Your task to perform on an android device: turn off javascript in the chrome app Image 0: 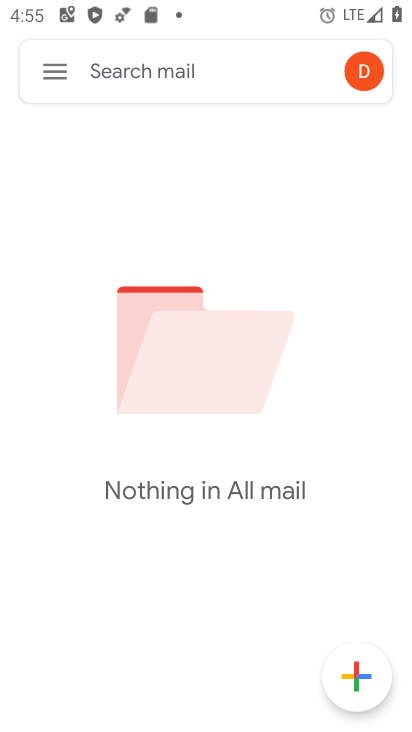
Step 0: press home button
Your task to perform on an android device: turn off javascript in the chrome app Image 1: 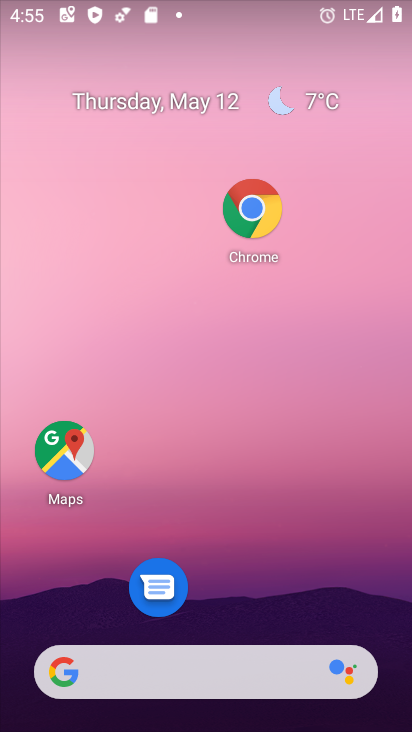
Step 1: click (256, 250)
Your task to perform on an android device: turn off javascript in the chrome app Image 2: 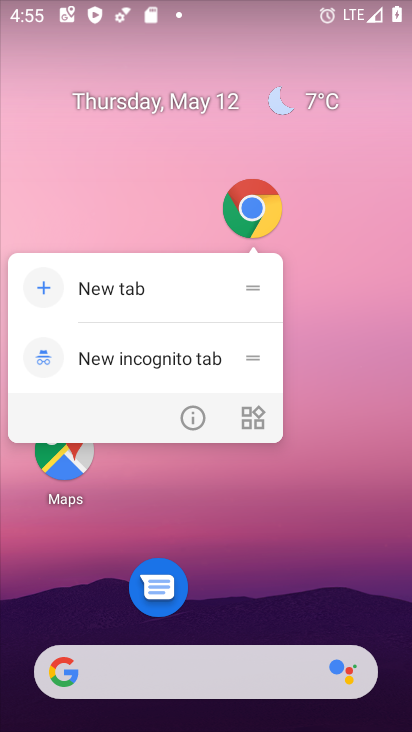
Step 2: click (255, 211)
Your task to perform on an android device: turn off javascript in the chrome app Image 3: 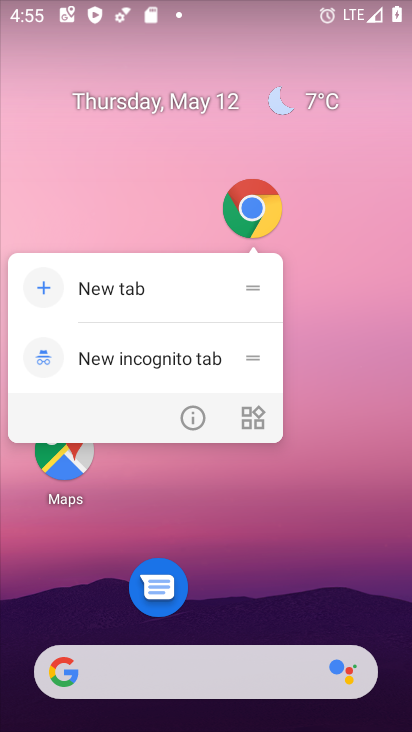
Step 3: click (255, 215)
Your task to perform on an android device: turn off javascript in the chrome app Image 4: 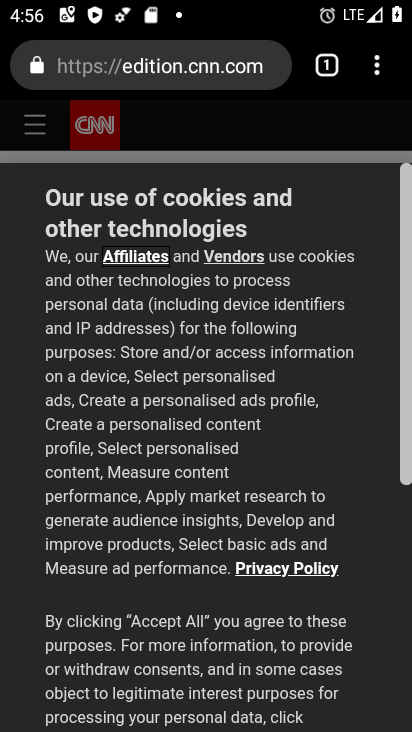
Step 4: click (382, 69)
Your task to perform on an android device: turn off javascript in the chrome app Image 5: 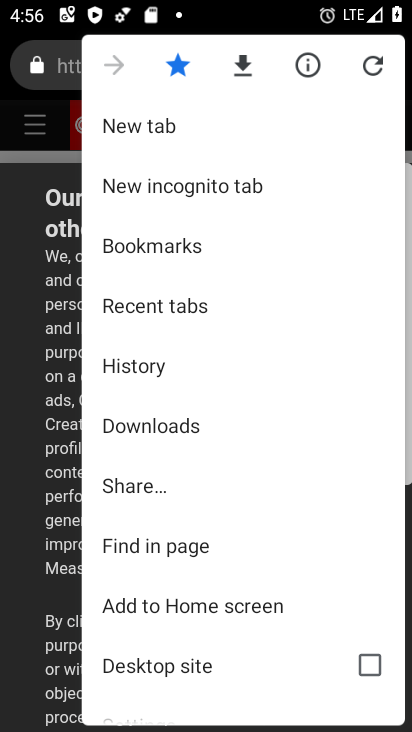
Step 5: drag from (193, 650) to (208, 394)
Your task to perform on an android device: turn off javascript in the chrome app Image 6: 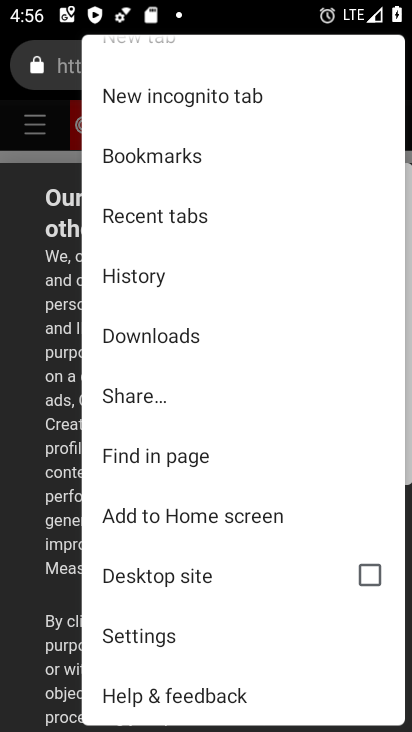
Step 6: click (162, 638)
Your task to perform on an android device: turn off javascript in the chrome app Image 7: 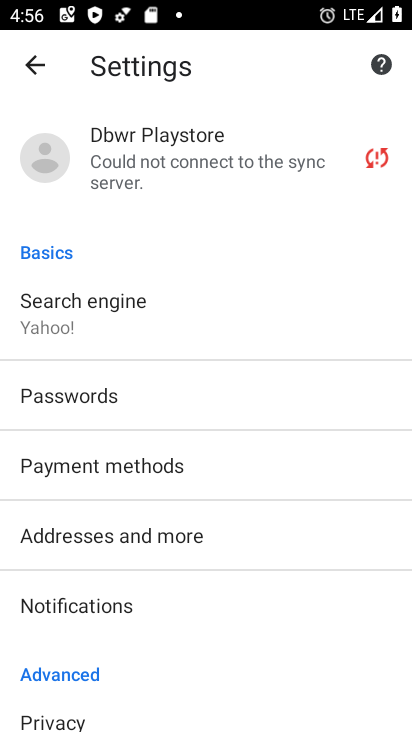
Step 7: drag from (206, 655) to (275, 366)
Your task to perform on an android device: turn off javascript in the chrome app Image 8: 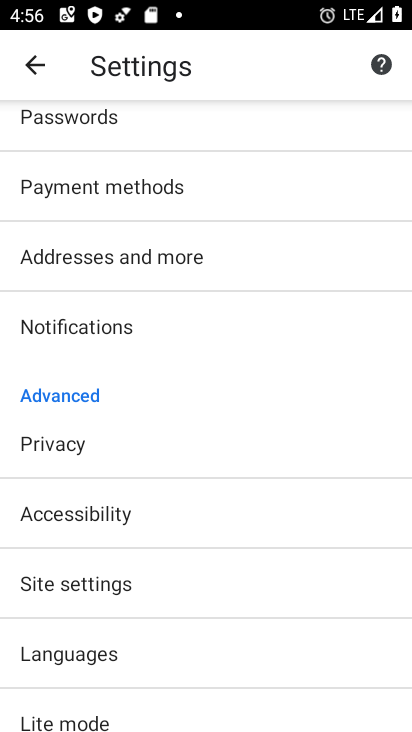
Step 8: drag from (139, 678) to (177, 417)
Your task to perform on an android device: turn off javascript in the chrome app Image 9: 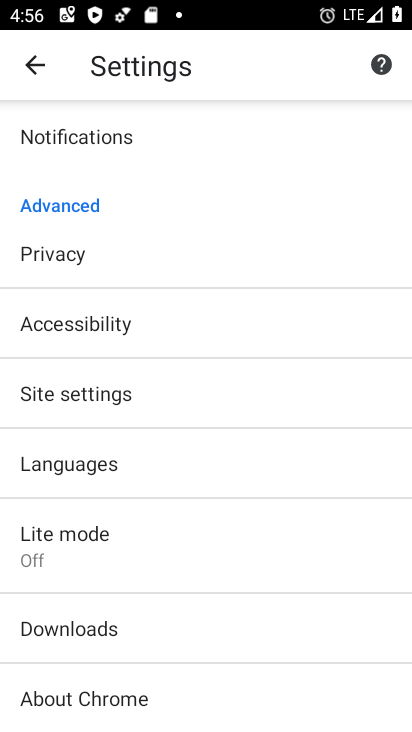
Step 9: click (101, 405)
Your task to perform on an android device: turn off javascript in the chrome app Image 10: 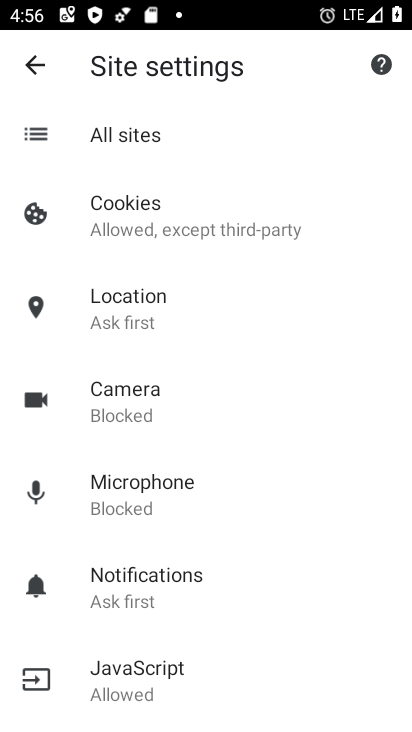
Step 10: drag from (175, 615) to (251, 238)
Your task to perform on an android device: turn off javascript in the chrome app Image 11: 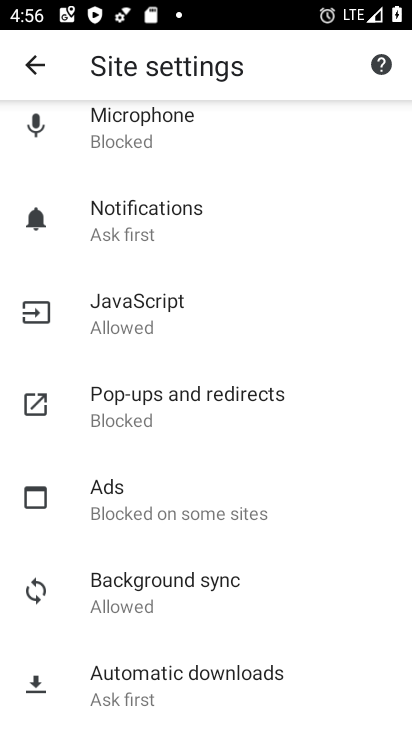
Step 11: click (179, 317)
Your task to perform on an android device: turn off javascript in the chrome app Image 12: 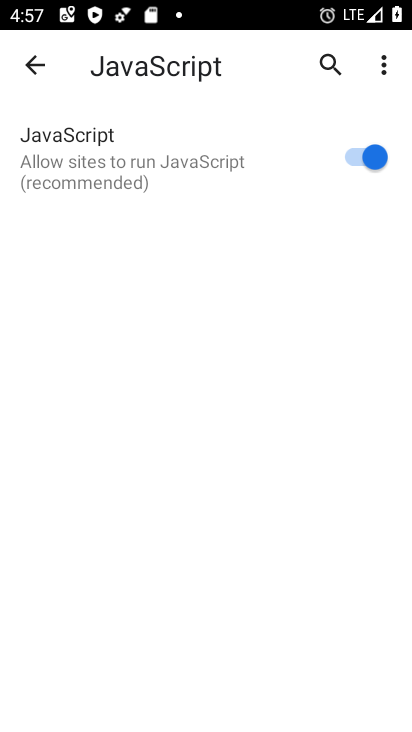
Step 12: click (343, 172)
Your task to perform on an android device: turn off javascript in the chrome app Image 13: 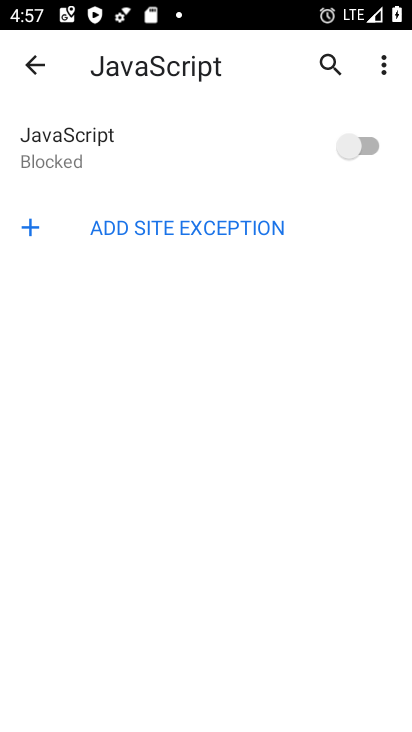
Step 13: task complete